Your task to perform on an android device: Go to network settings Image 0: 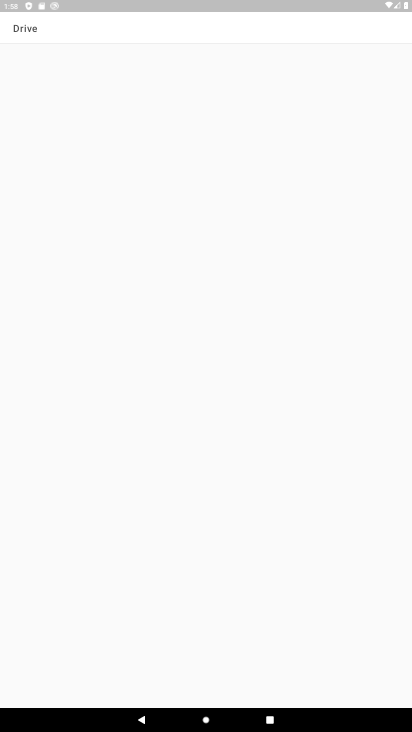
Step 0: press home button
Your task to perform on an android device: Go to network settings Image 1: 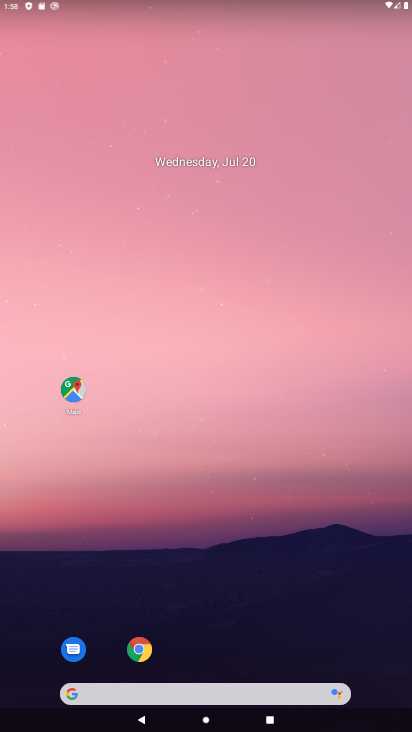
Step 1: drag from (203, 597) to (274, 192)
Your task to perform on an android device: Go to network settings Image 2: 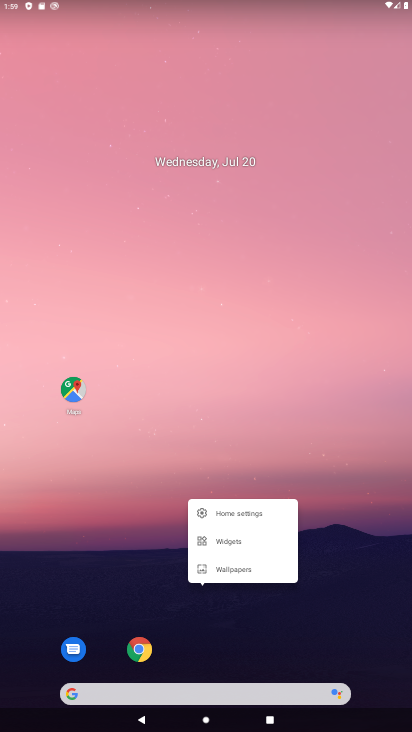
Step 2: drag from (180, 661) to (210, 206)
Your task to perform on an android device: Go to network settings Image 3: 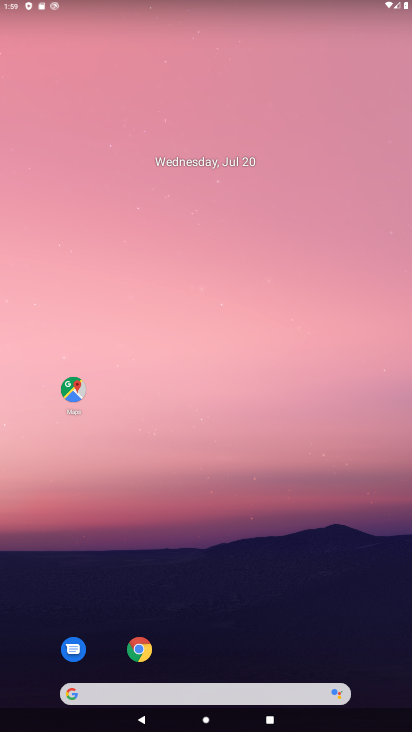
Step 3: drag from (208, 662) to (244, 222)
Your task to perform on an android device: Go to network settings Image 4: 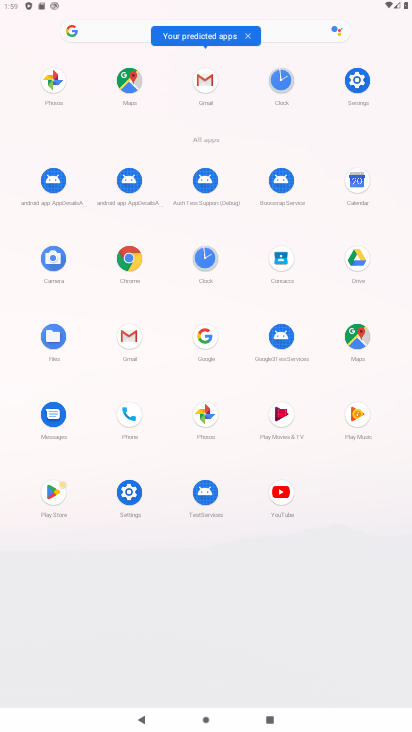
Step 4: click (138, 503)
Your task to perform on an android device: Go to network settings Image 5: 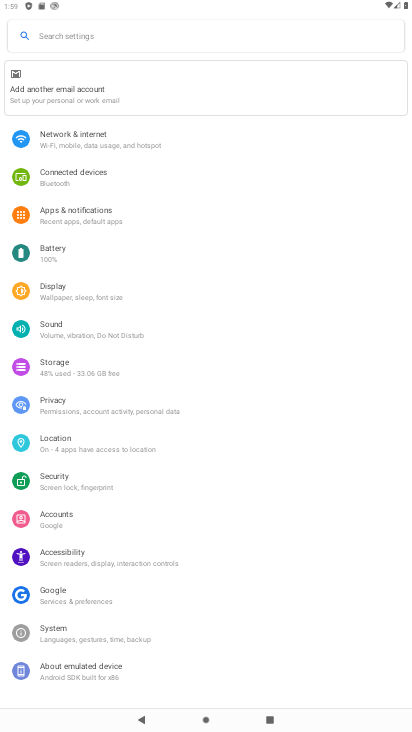
Step 5: click (129, 138)
Your task to perform on an android device: Go to network settings Image 6: 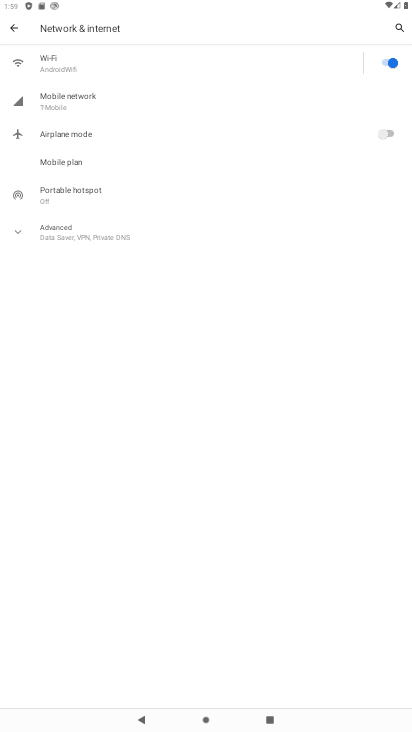
Step 6: click (128, 96)
Your task to perform on an android device: Go to network settings Image 7: 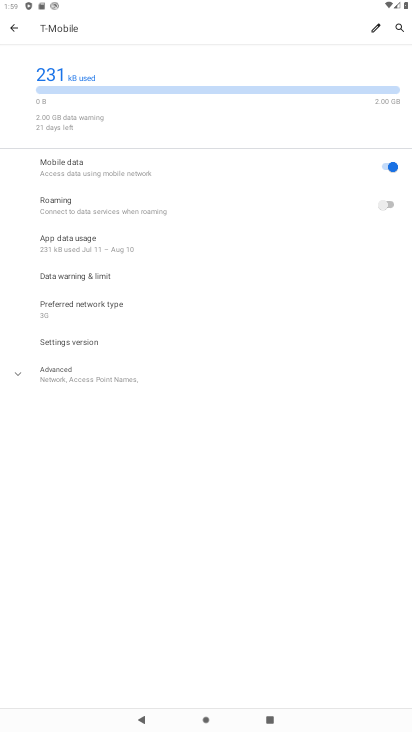
Step 7: task complete